Your task to perform on an android device: create a new album in the google photos Image 0: 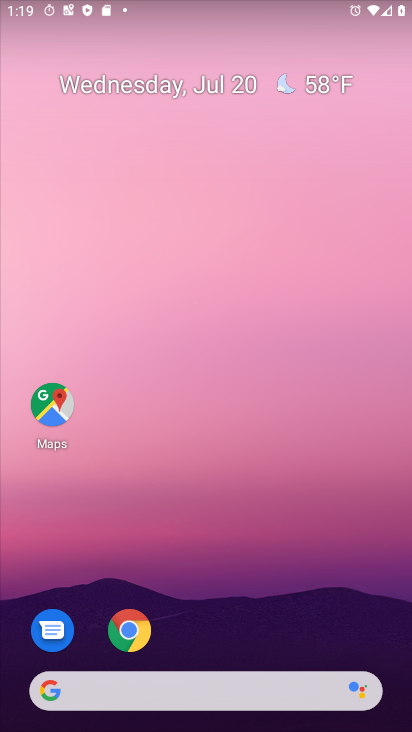
Step 0: press home button
Your task to perform on an android device: create a new album in the google photos Image 1: 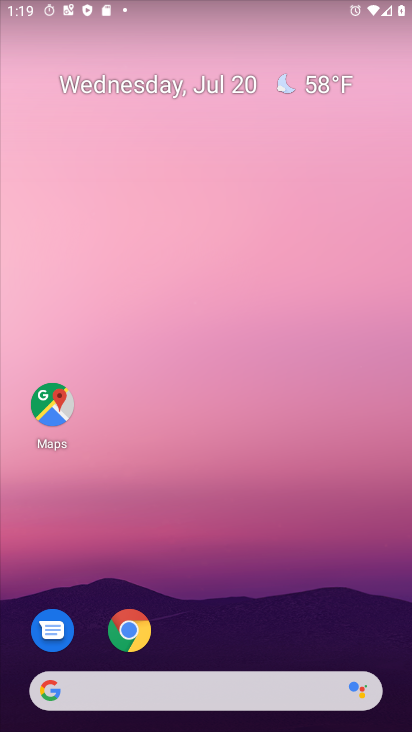
Step 1: drag from (164, 684) to (296, 191)
Your task to perform on an android device: create a new album in the google photos Image 2: 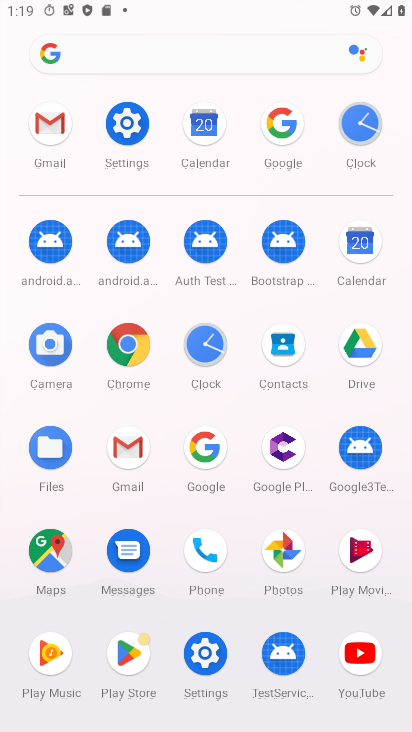
Step 2: click (293, 550)
Your task to perform on an android device: create a new album in the google photos Image 3: 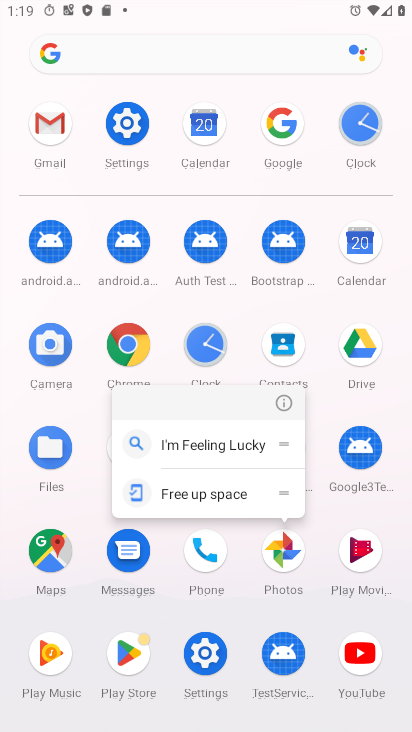
Step 3: click (285, 555)
Your task to perform on an android device: create a new album in the google photos Image 4: 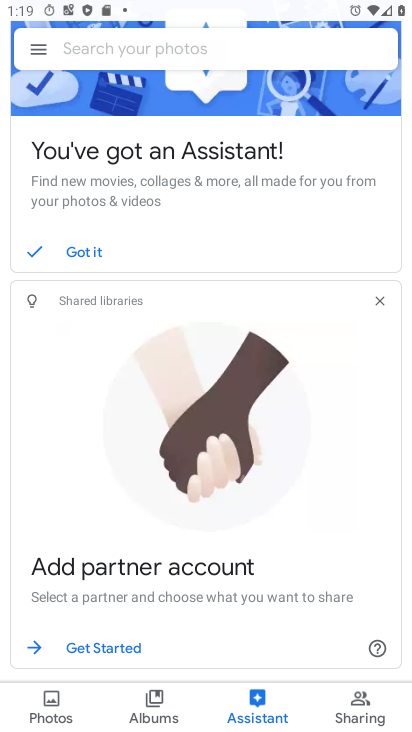
Step 4: click (151, 701)
Your task to perform on an android device: create a new album in the google photos Image 5: 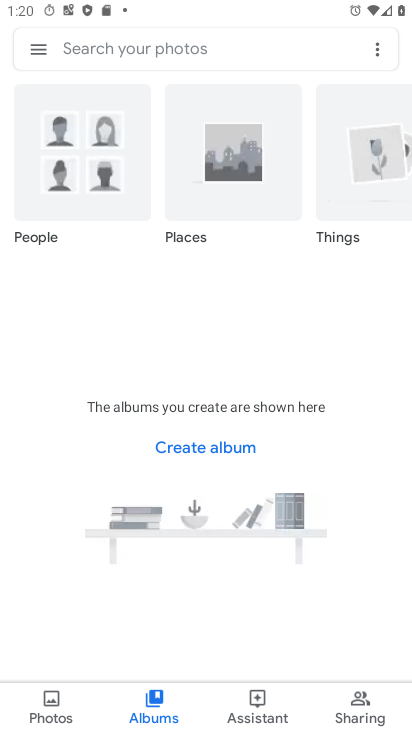
Step 5: task complete